Your task to perform on an android device: Go to sound settings Image 0: 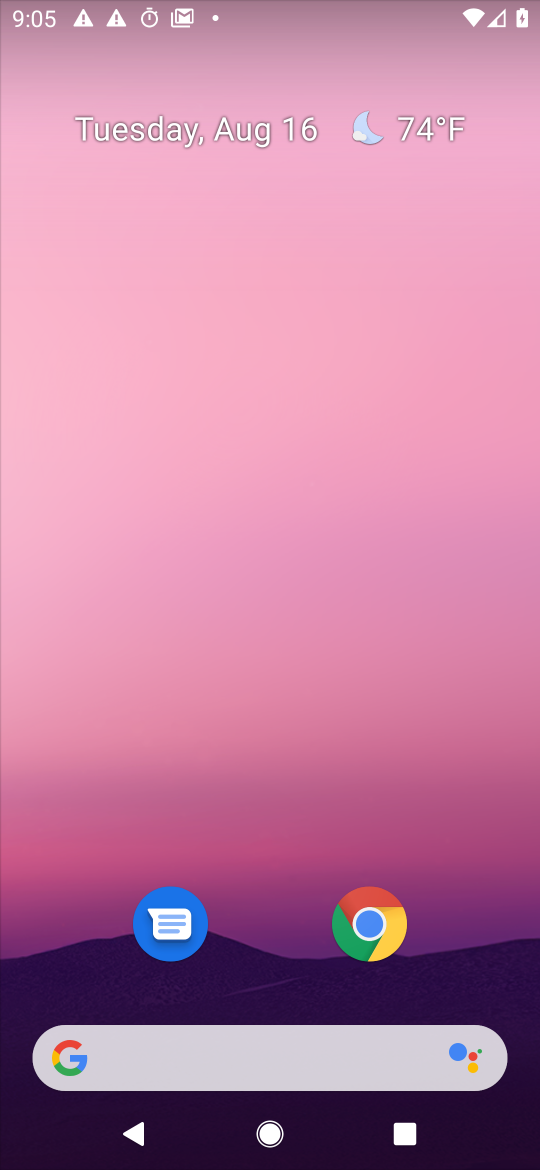
Step 0: drag from (278, 986) to (296, 148)
Your task to perform on an android device: Go to sound settings Image 1: 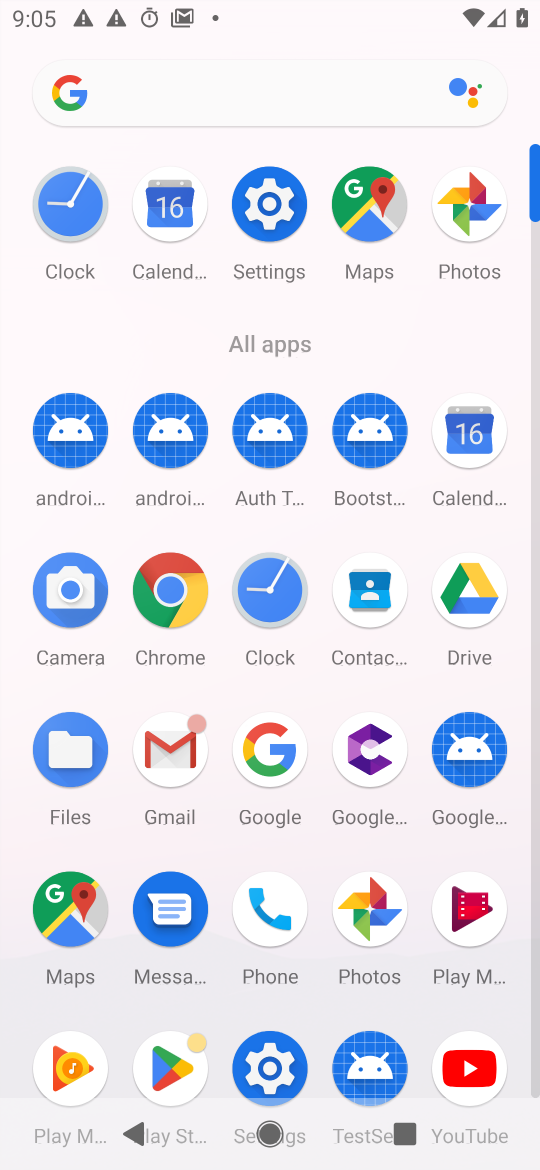
Step 1: click (282, 203)
Your task to perform on an android device: Go to sound settings Image 2: 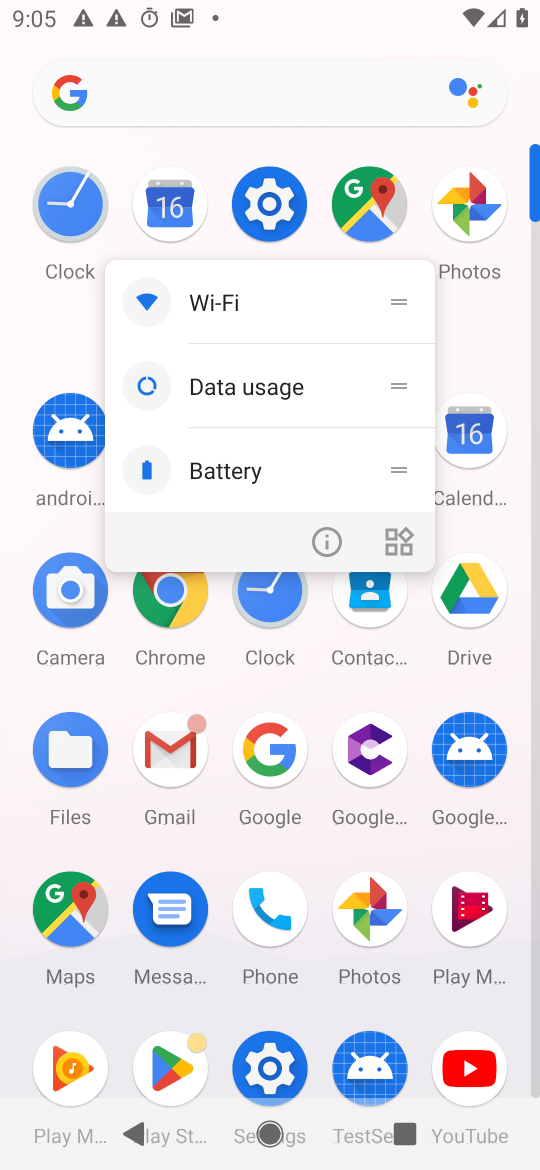
Step 2: click (282, 185)
Your task to perform on an android device: Go to sound settings Image 3: 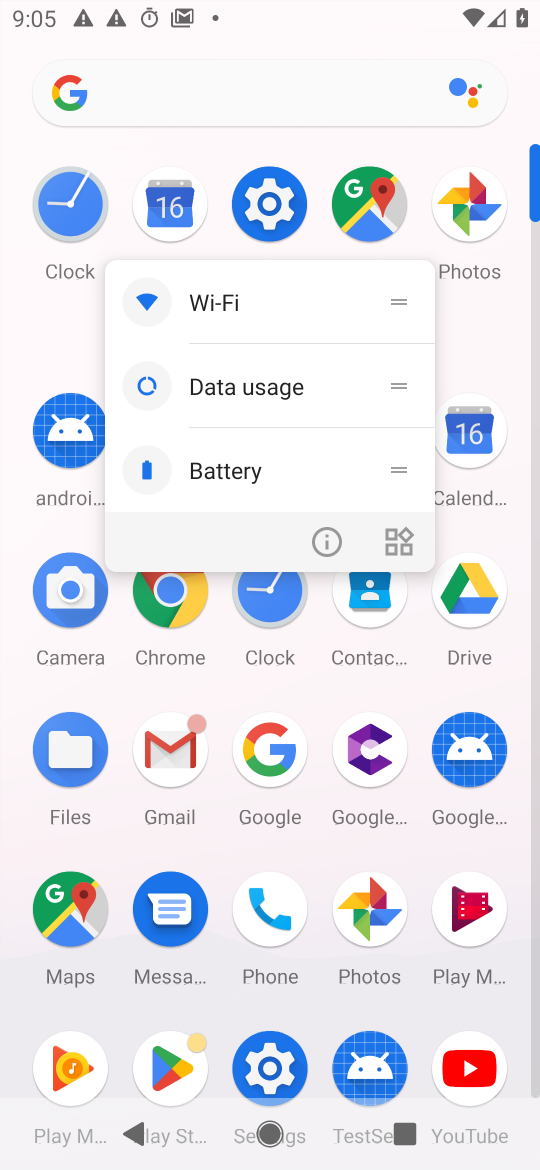
Step 3: click (279, 211)
Your task to perform on an android device: Go to sound settings Image 4: 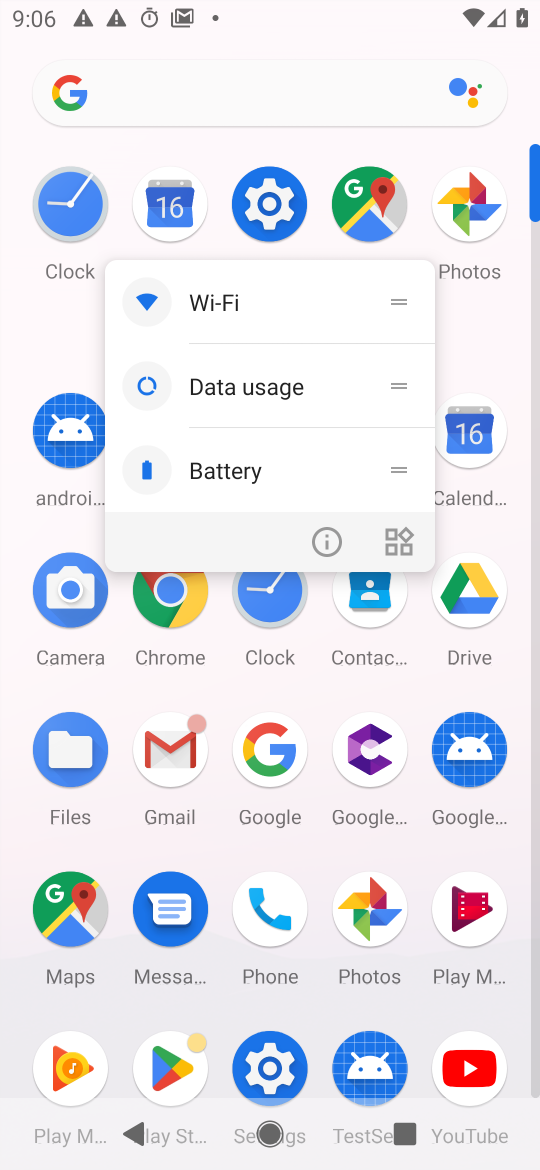
Step 4: click (251, 219)
Your task to perform on an android device: Go to sound settings Image 5: 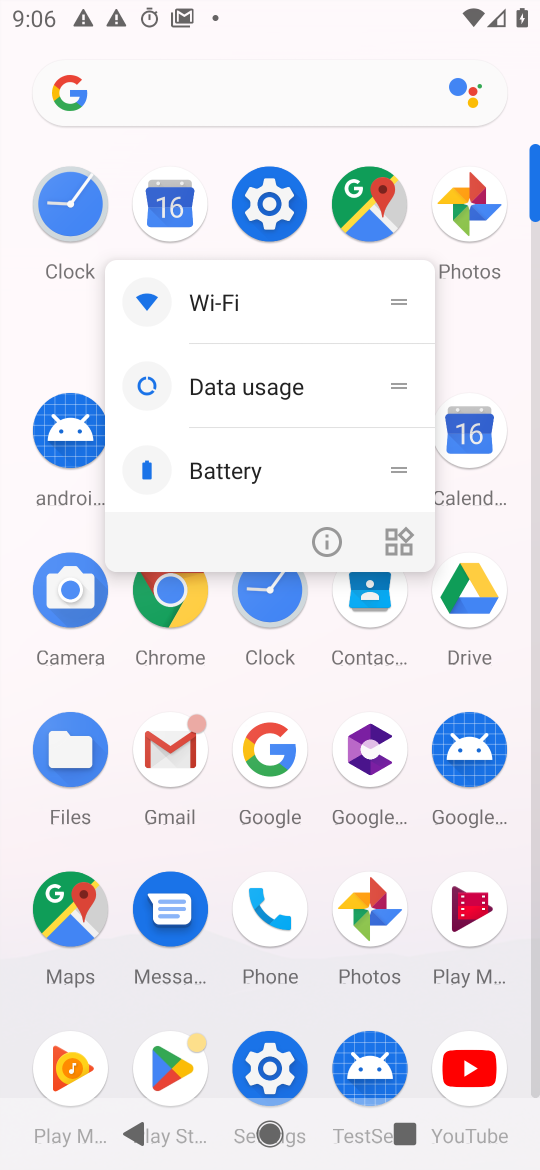
Step 5: click (267, 206)
Your task to perform on an android device: Go to sound settings Image 6: 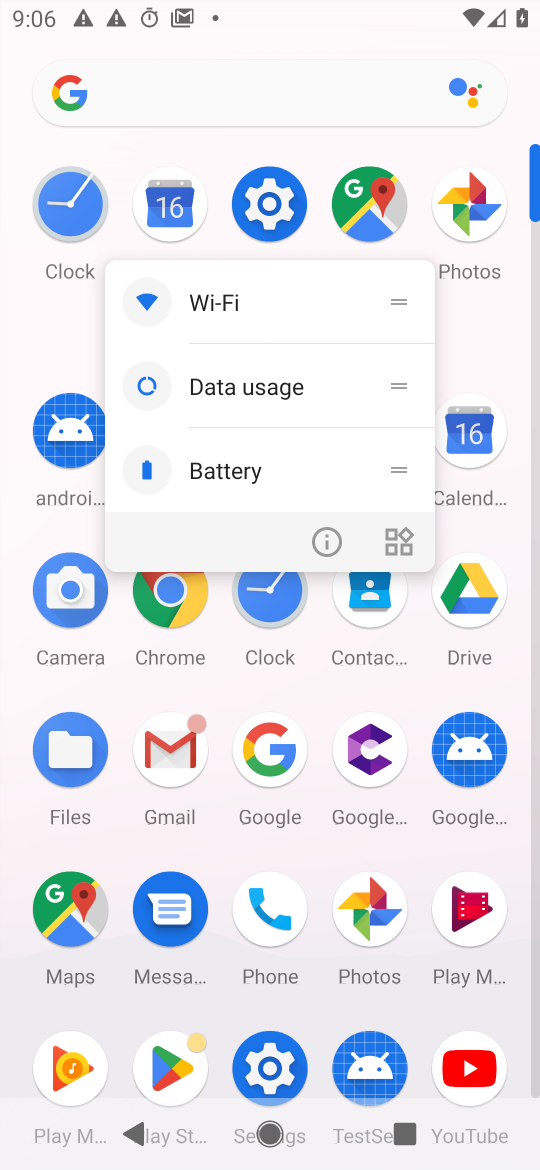
Step 6: click (252, 224)
Your task to perform on an android device: Go to sound settings Image 7: 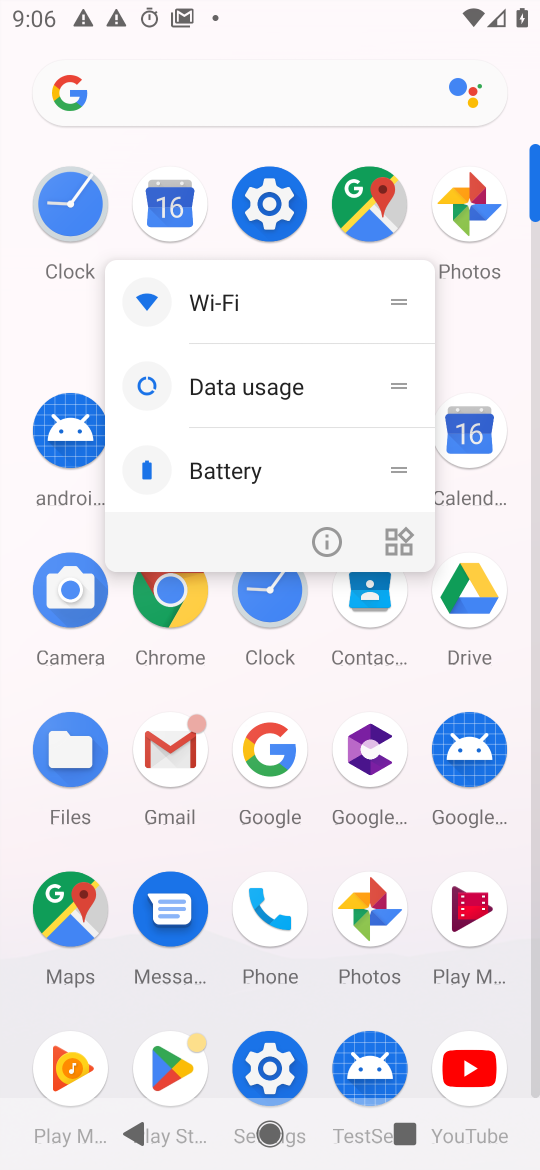
Step 7: click (253, 227)
Your task to perform on an android device: Go to sound settings Image 8: 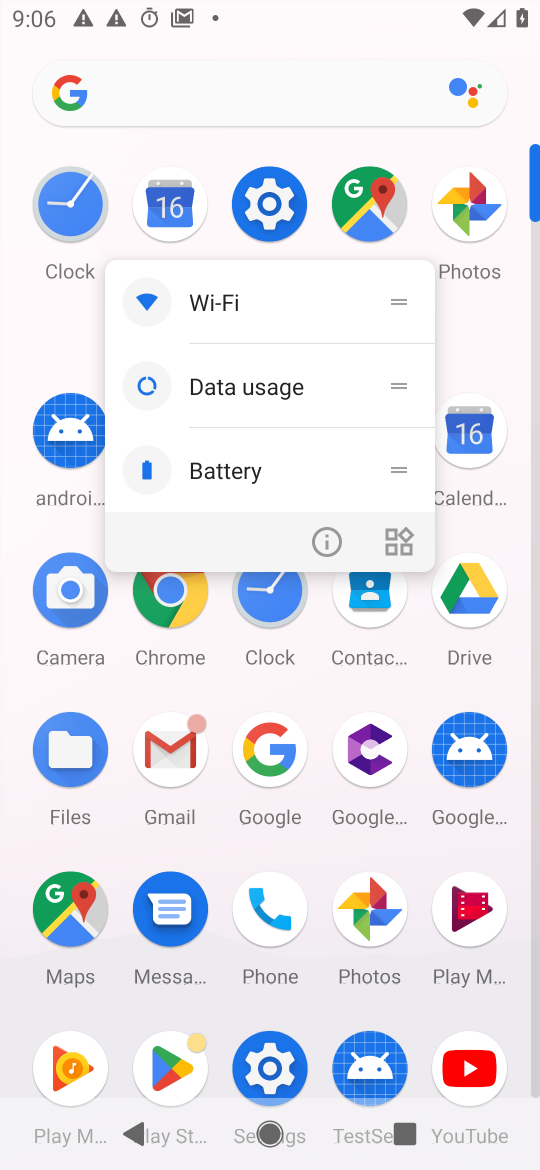
Step 8: click (273, 216)
Your task to perform on an android device: Go to sound settings Image 9: 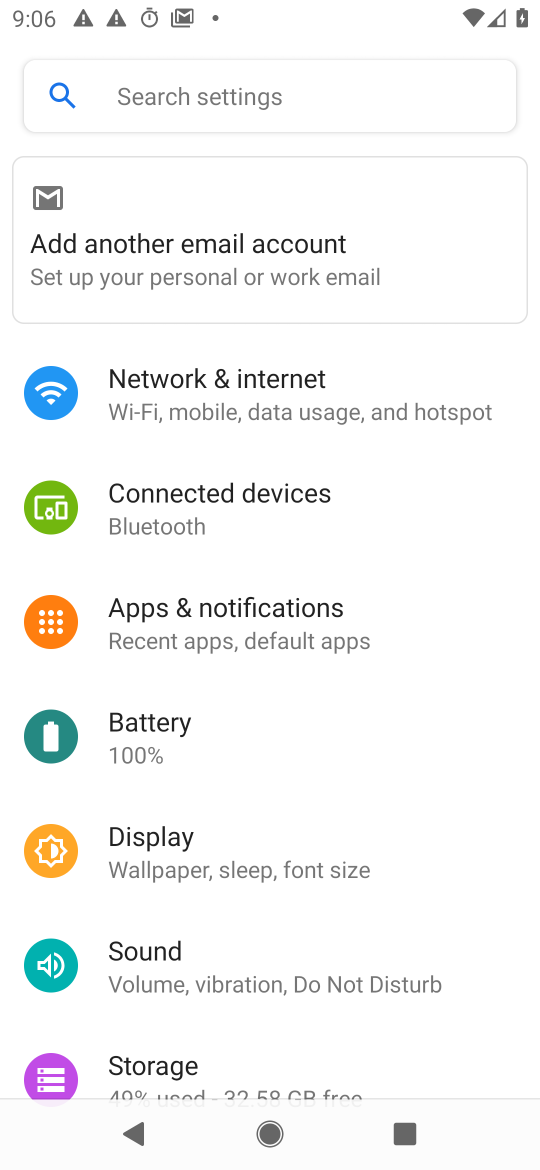
Step 9: click (212, 969)
Your task to perform on an android device: Go to sound settings Image 10: 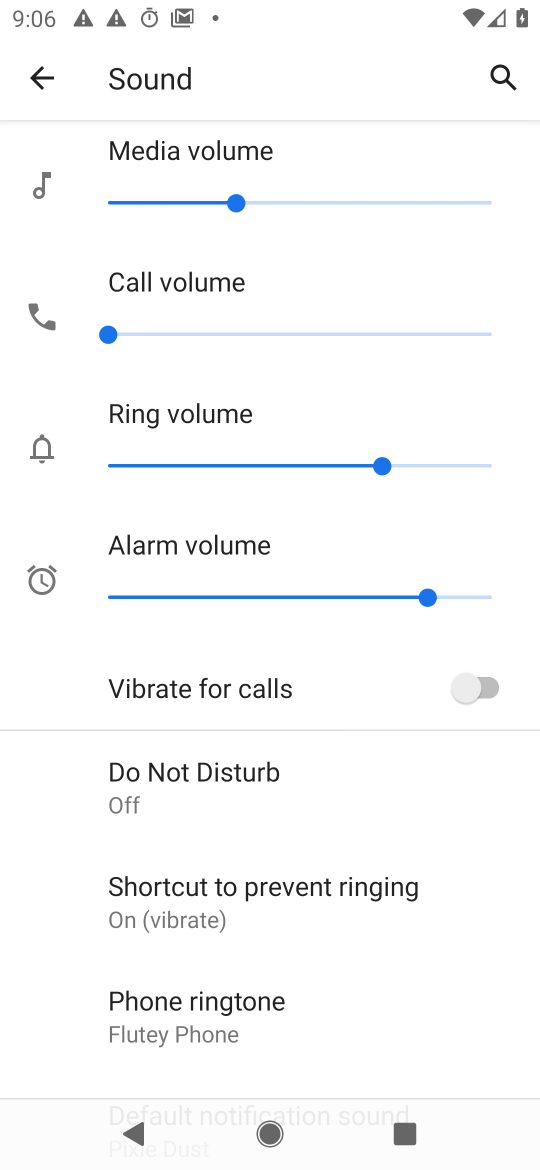
Step 10: task complete